Your task to perform on an android device: toggle translation in the chrome app Image 0: 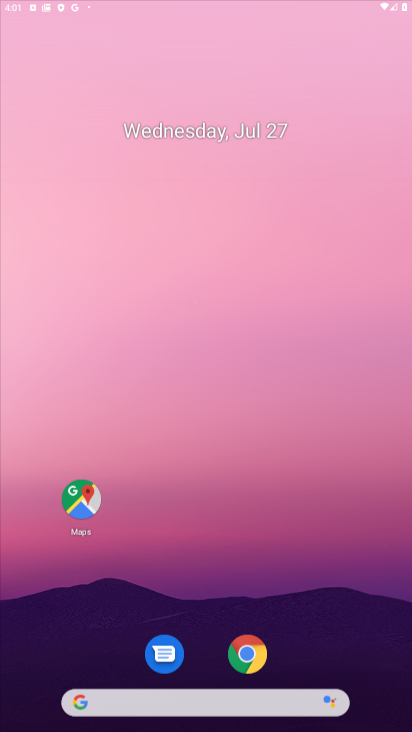
Step 0: press home button
Your task to perform on an android device: toggle translation in the chrome app Image 1: 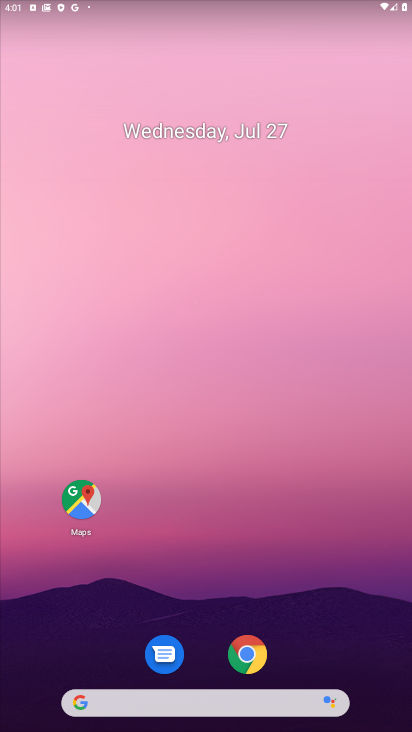
Step 1: click (249, 666)
Your task to perform on an android device: toggle translation in the chrome app Image 2: 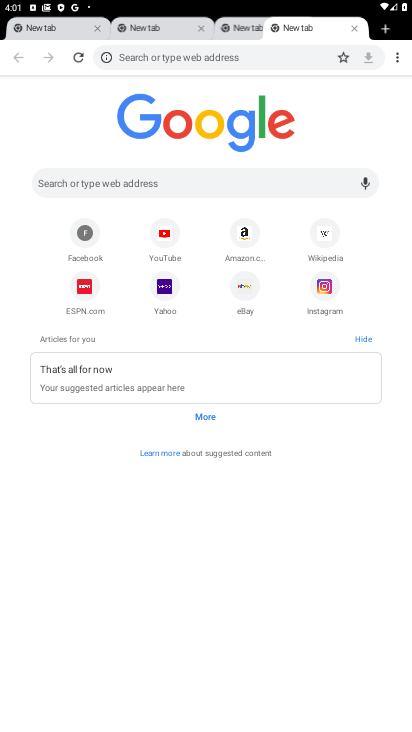
Step 2: click (198, 29)
Your task to perform on an android device: toggle translation in the chrome app Image 3: 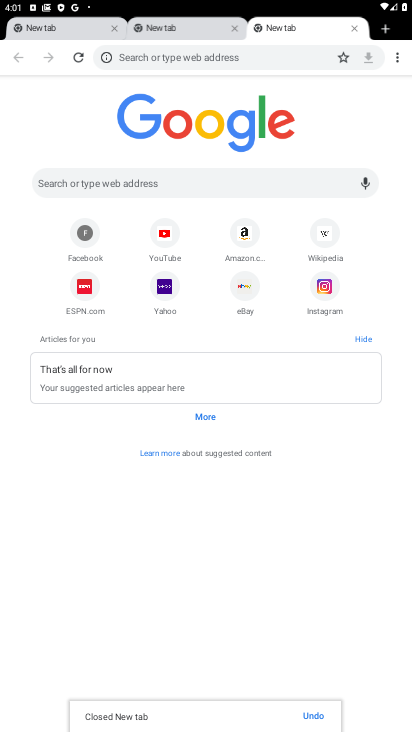
Step 3: click (111, 28)
Your task to perform on an android device: toggle translation in the chrome app Image 4: 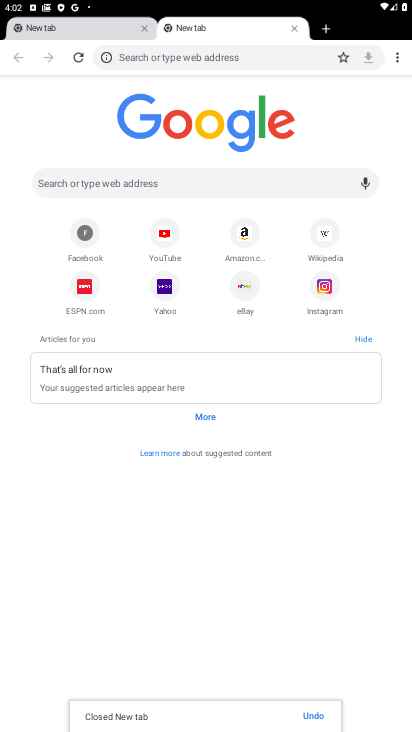
Step 4: click (138, 27)
Your task to perform on an android device: toggle translation in the chrome app Image 5: 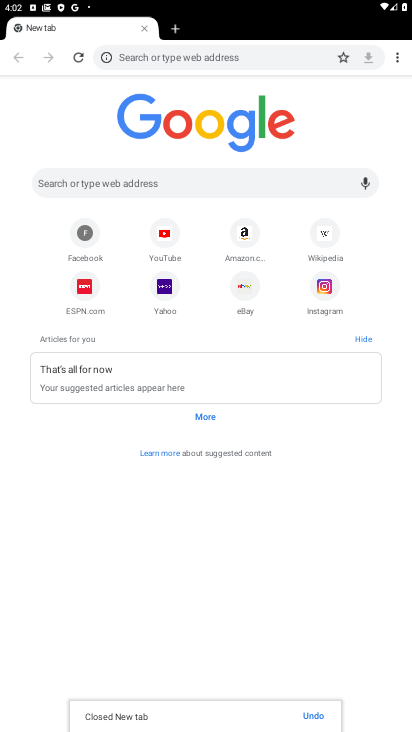
Step 5: click (138, 27)
Your task to perform on an android device: toggle translation in the chrome app Image 6: 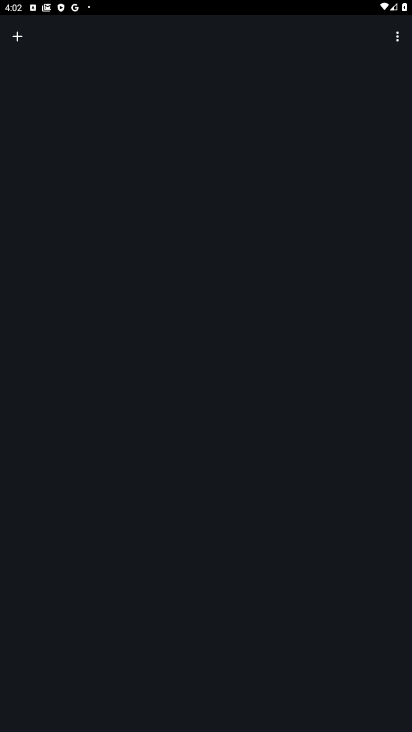
Step 6: click (24, 41)
Your task to perform on an android device: toggle translation in the chrome app Image 7: 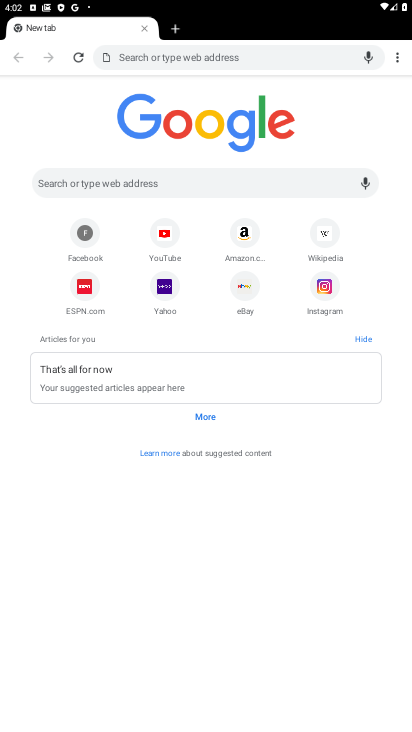
Step 7: click (396, 61)
Your task to perform on an android device: toggle translation in the chrome app Image 8: 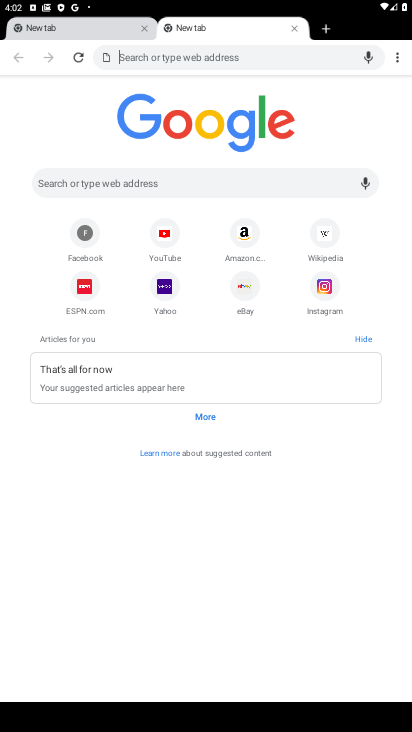
Step 8: click (396, 61)
Your task to perform on an android device: toggle translation in the chrome app Image 9: 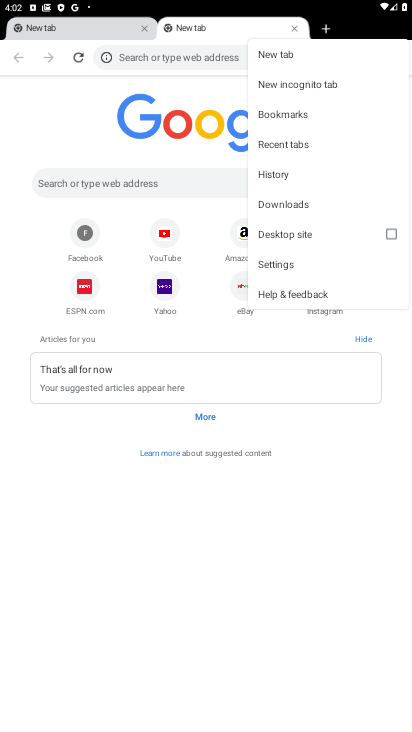
Step 9: click (279, 262)
Your task to perform on an android device: toggle translation in the chrome app Image 10: 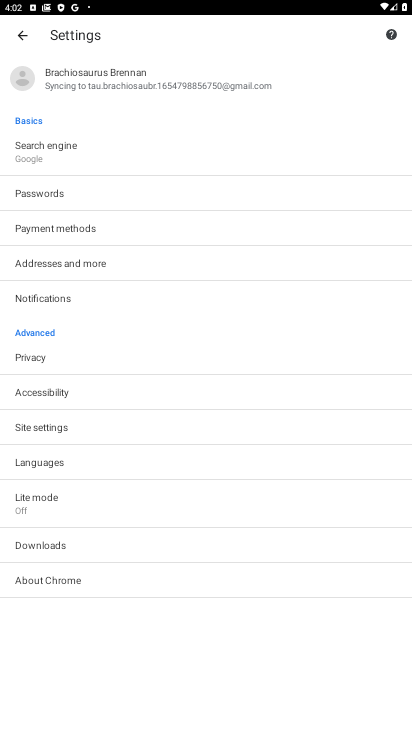
Step 10: click (48, 462)
Your task to perform on an android device: toggle translation in the chrome app Image 11: 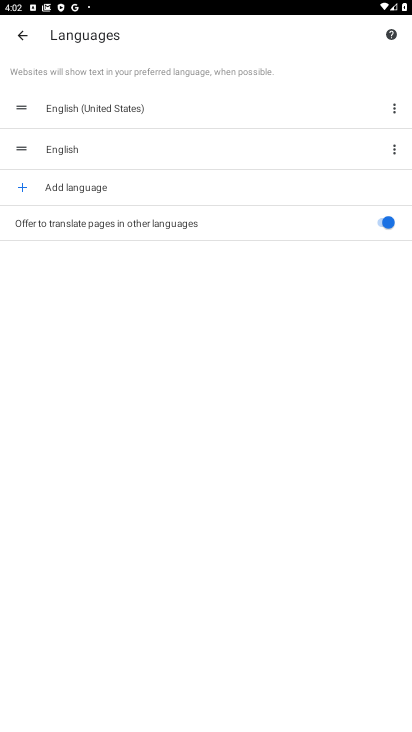
Step 11: click (379, 224)
Your task to perform on an android device: toggle translation in the chrome app Image 12: 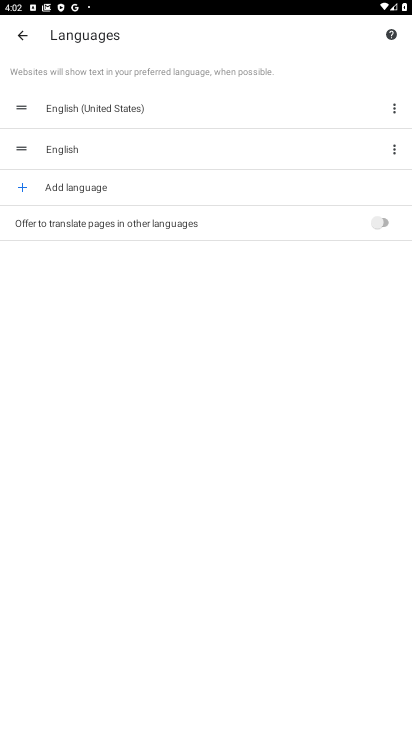
Step 12: task complete